Your task to perform on an android device: Go to calendar. Show me events next week Image 0: 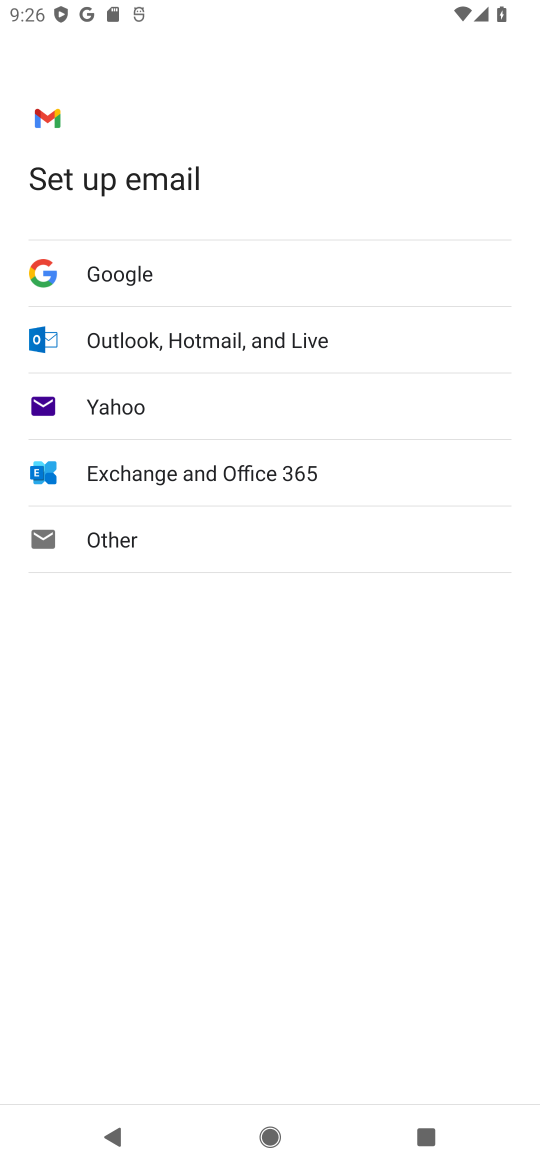
Step 0: press home button
Your task to perform on an android device: Go to calendar. Show me events next week Image 1: 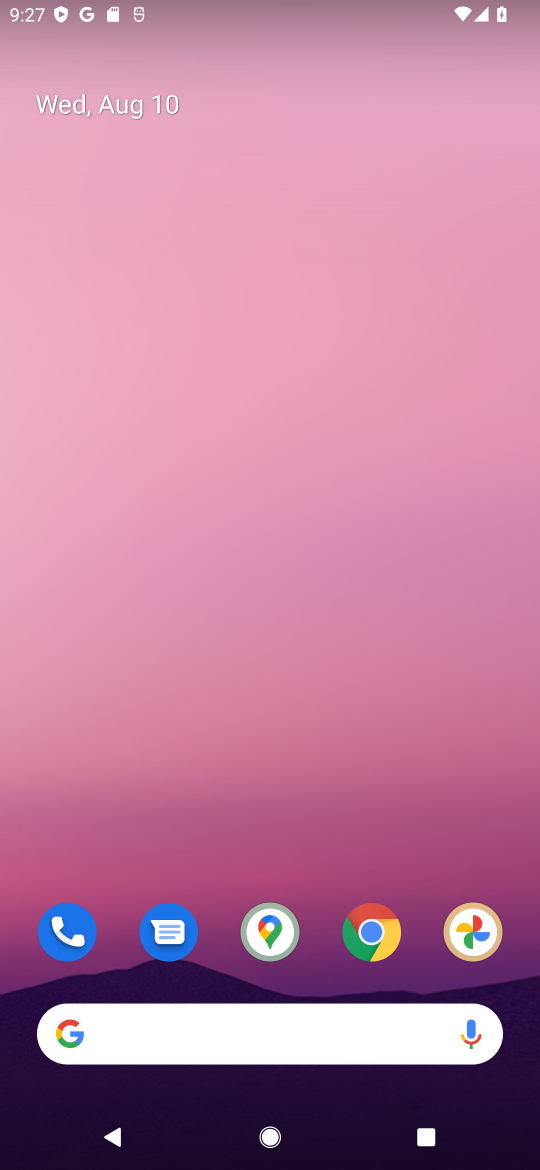
Step 1: drag from (325, 891) to (290, 145)
Your task to perform on an android device: Go to calendar. Show me events next week Image 2: 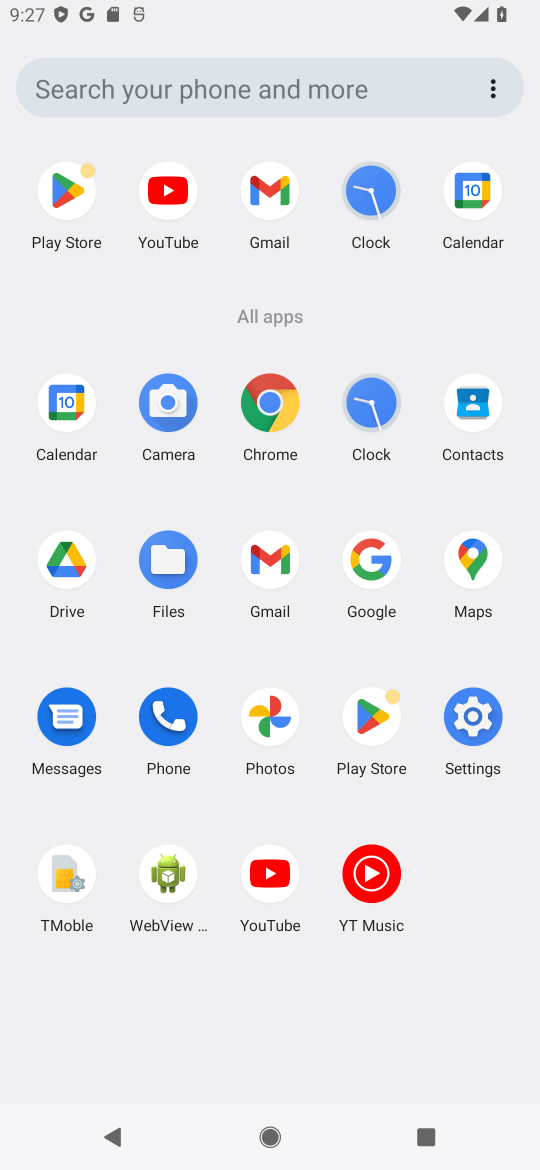
Step 2: click (480, 191)
Your task to perform on an android device: Go to calendar. Show me events next week Image 3: 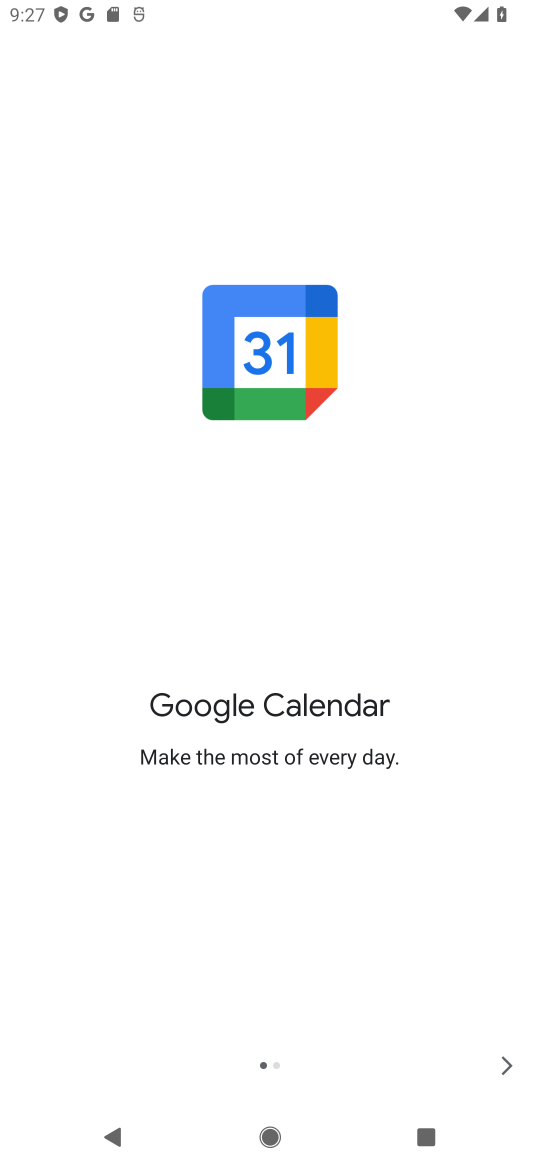
Step 3: click (509, 1057)
Your task to perform on an android device: Go to calendar. Show me events next week Image 4: 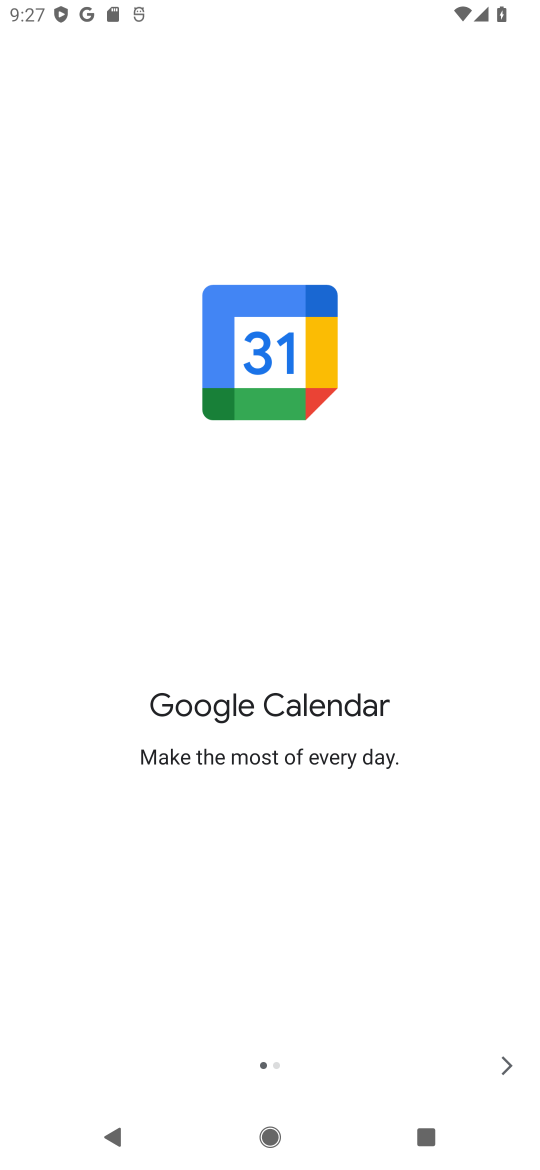
Step 4: click (509, 1057)
Your task to perform on an android device: Go to calendar. Show me events next week Image 5: 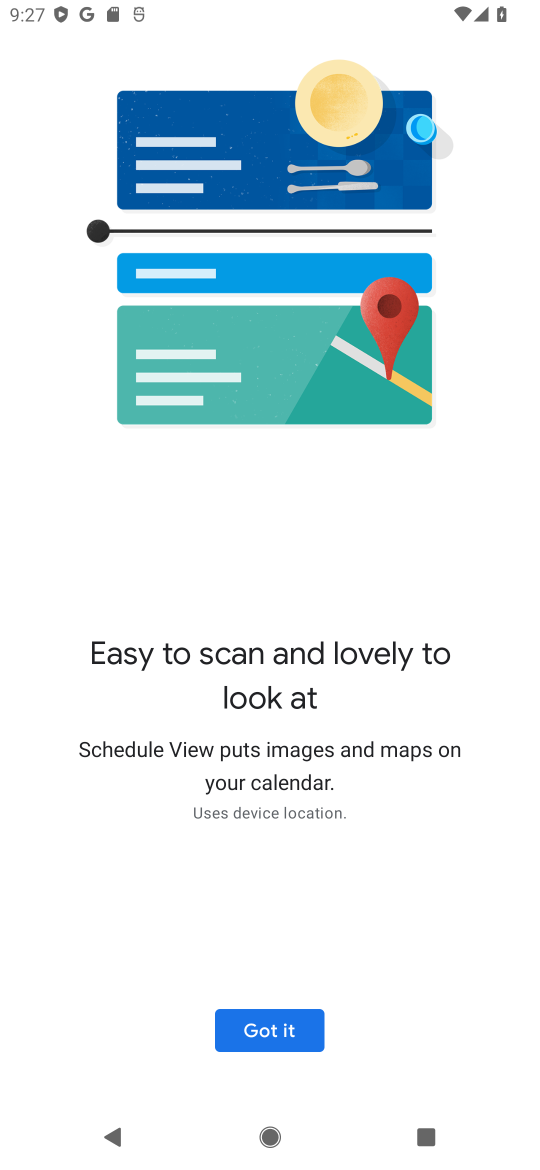
Step 5: click (273, 1025)
Your task to perform on an android device: Go to calendar. Show me events next week Image 6: 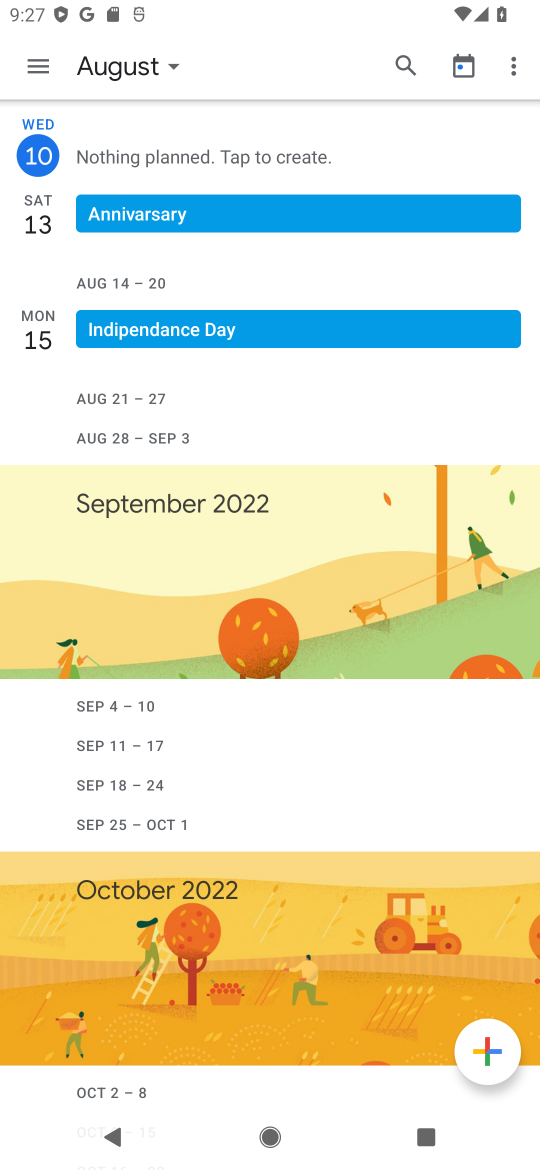
Step 6: click (39, 57)
Your task to perform on an android device: Go to calendar. Show me events next week Image 7: 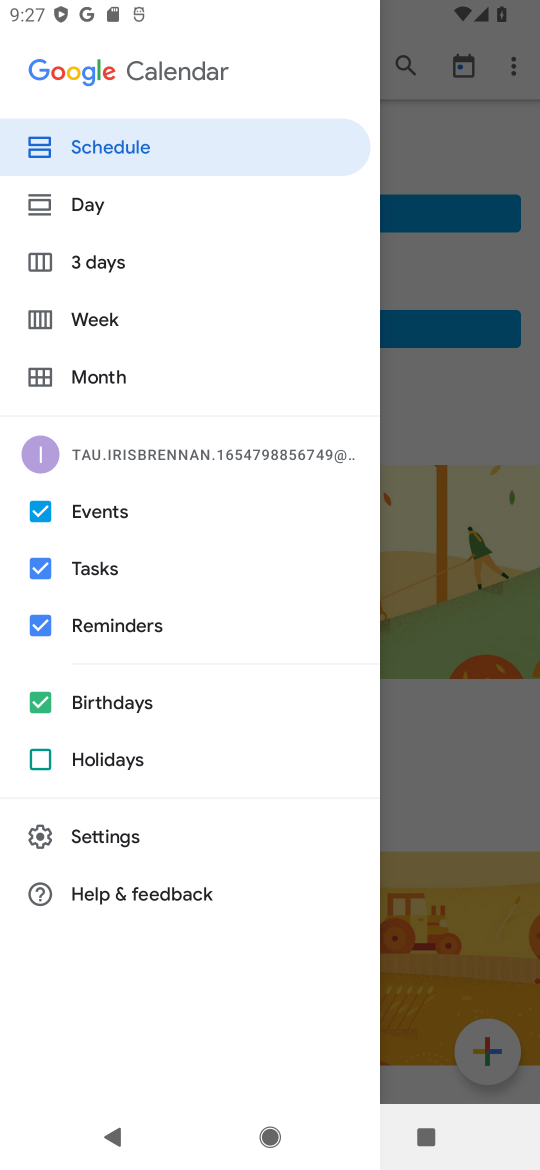
Step 7: click (87, 328)
Your task to perform on an android device: Go to calendar. Show me events next week Image 8: 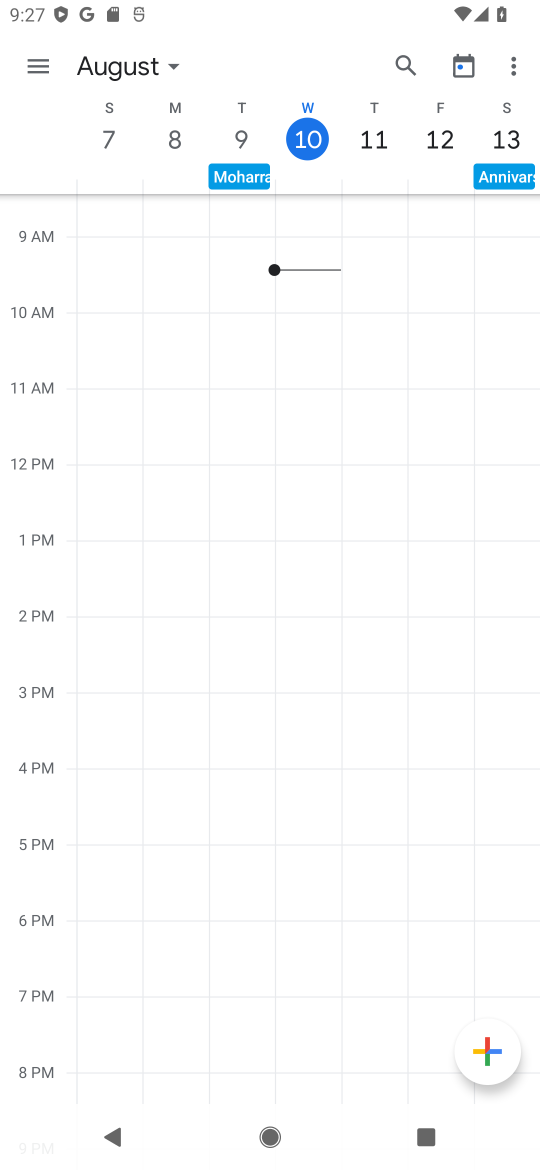
Step 8: click (160, 67)
Your task to perform on an android device: Go to calendar. Show me events next week Image 9: 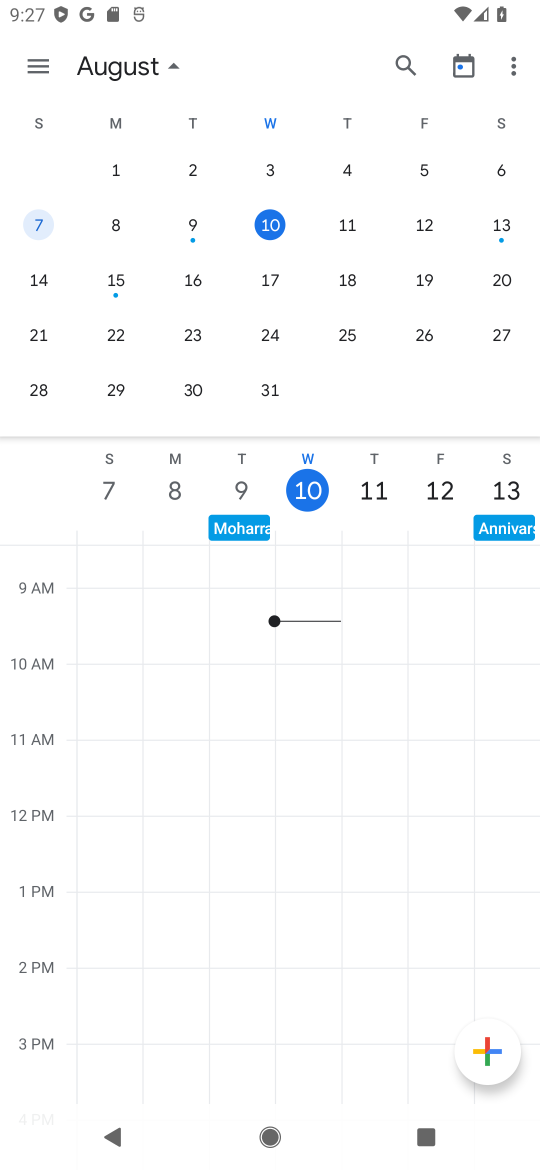
Step 9: drag from (272, 277) to (91, 262)
Your task to perform on an android device: Go to calendar. Show me events next week Image 10: 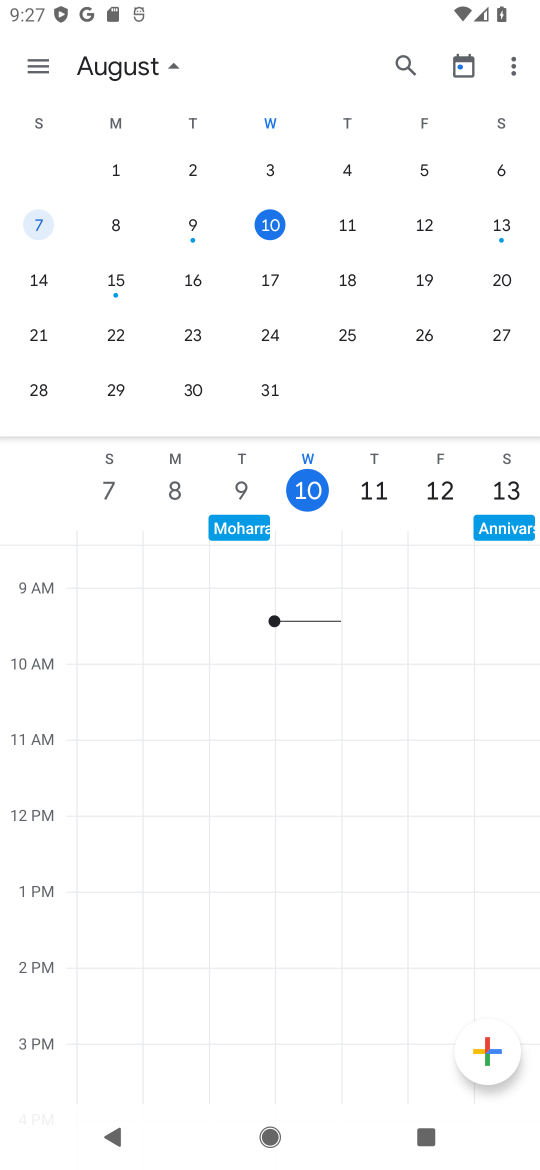
Step 10: click (276, 271)
Your task to perform on an android device: Go to calendar. Show me events next week Image 11: 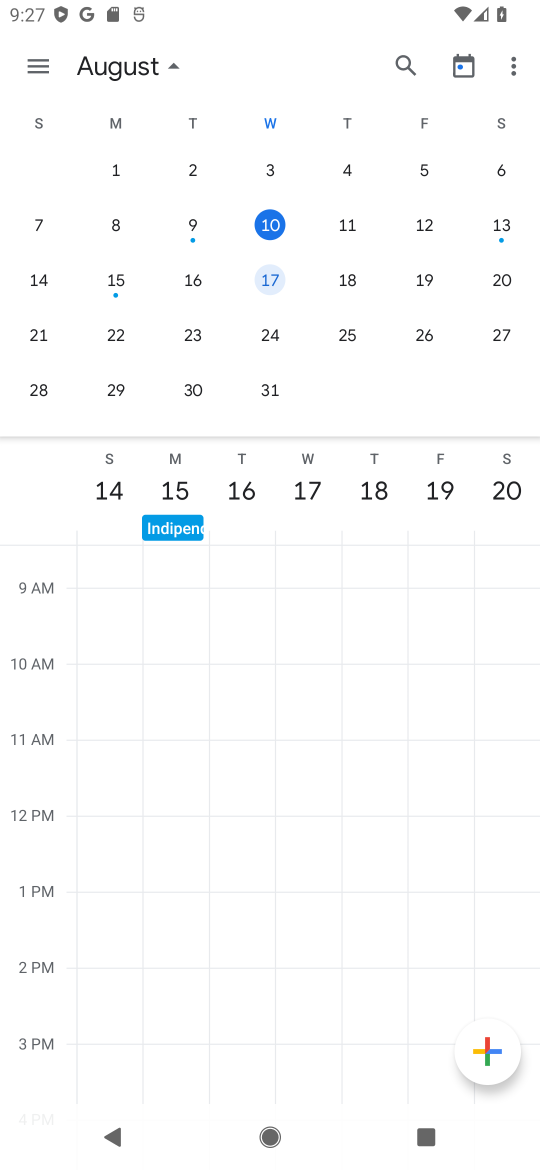
Step 11: task complete